Your task to perform on an android device: Do I have any events today? Image 0: 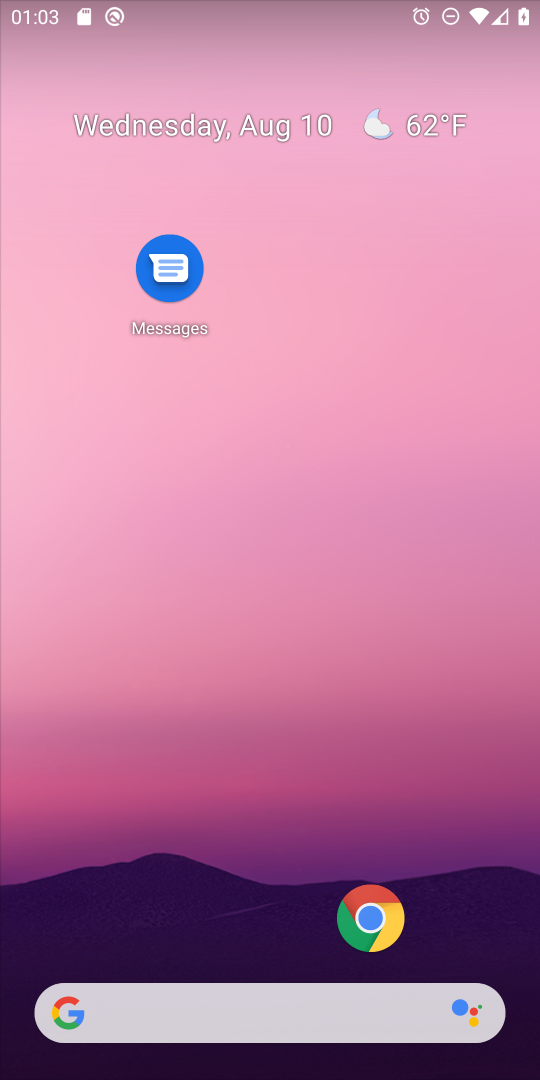
Step 0: drag from (439, 784) to (535, 172)
Your task to perform on an android device: Do I have any events today? Image 1: 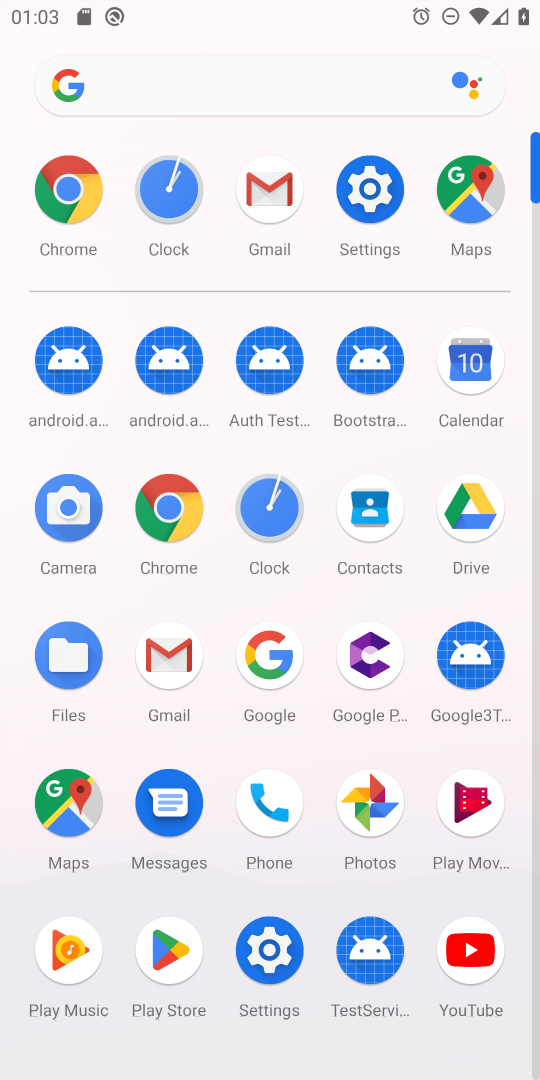
Step 1: click (466, 368)
Your task to perform on an android device: Do I have any events today? Image 2: 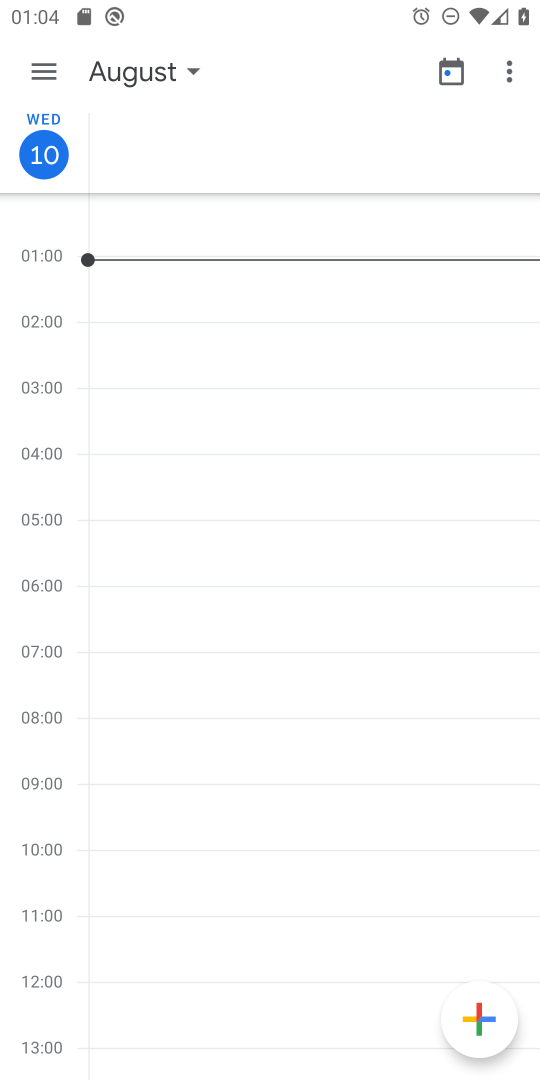
Step 2: task complete